Your task to perform on an android device: Open Google Image 0: 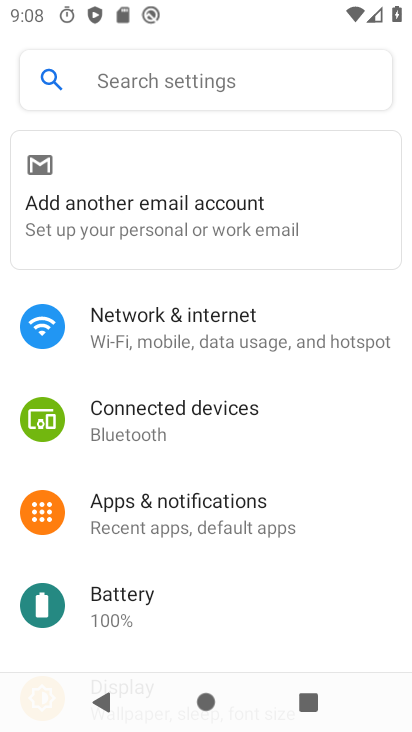
Step 0: press home button
Your task to perform on an android device: Open Google Image 1: 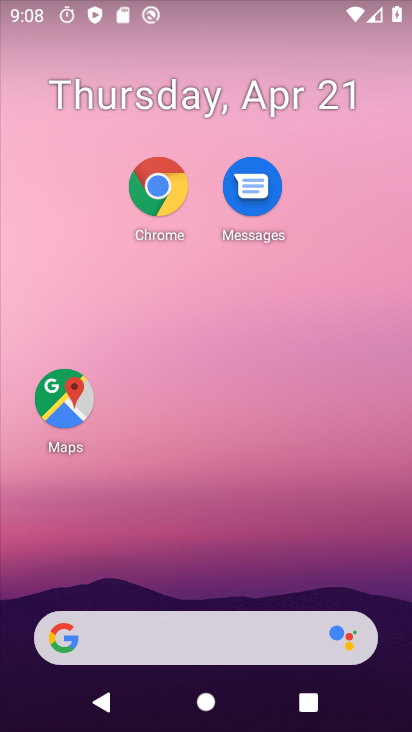
Step 1: click (169, 630)
Your task to perform on an android device: Open Google Image 2: 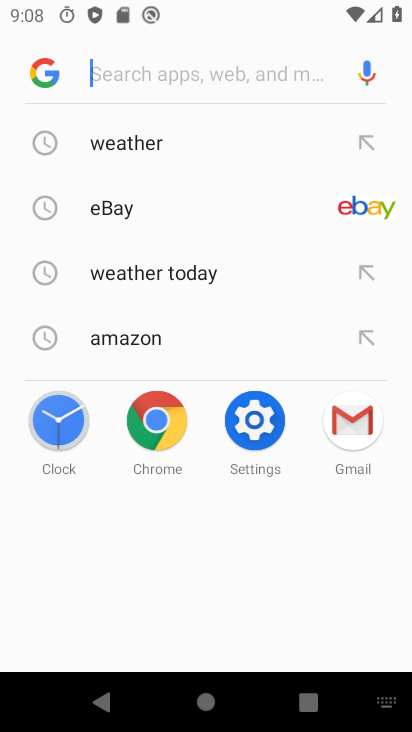
Step 2: type "google.com"
Your task to perform on an android device: Open Google Image 3: 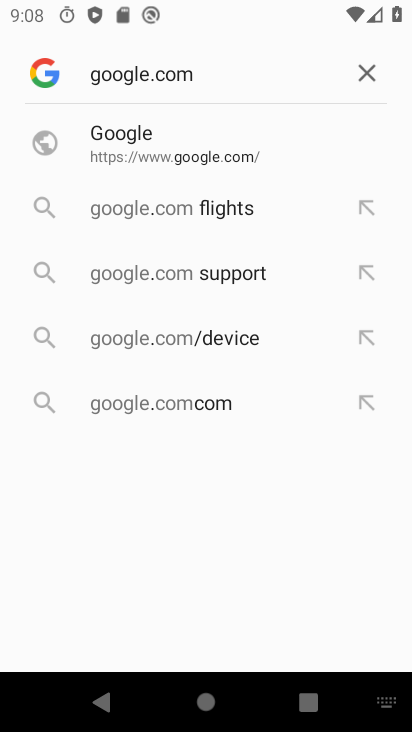
Step 3: click (227, 152)
Your task to perform on an android device: Open Google Image 4: 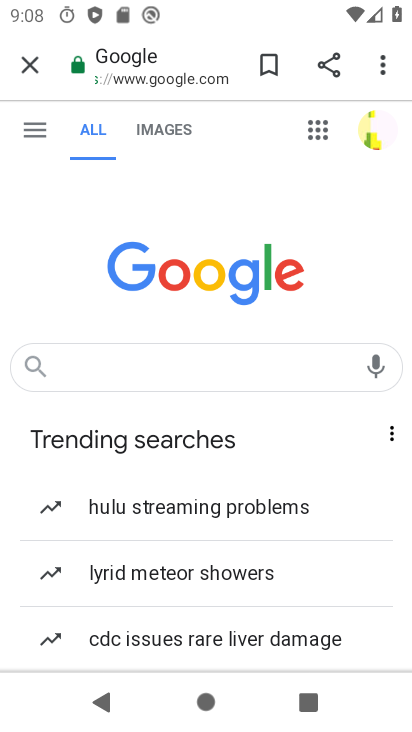
Step 4: task complete